Your task to perform on an android device: Go to internet settings Image 0: 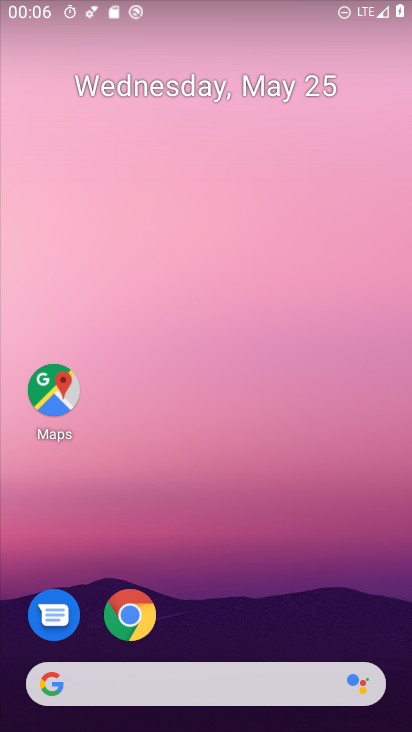
Step 0: drag from (260, 686) to (364, 66)
Your task to perform on an android device: Go to internet settings Image 1: 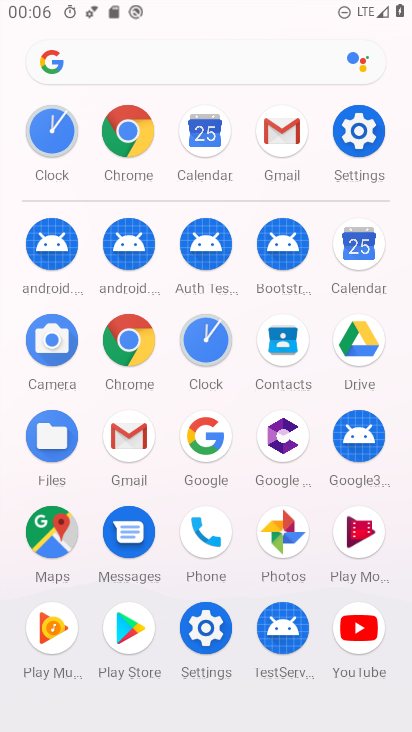
Step 1: click (354, 152)
Your task to perform on an android device: Go to internet settings Image 2: 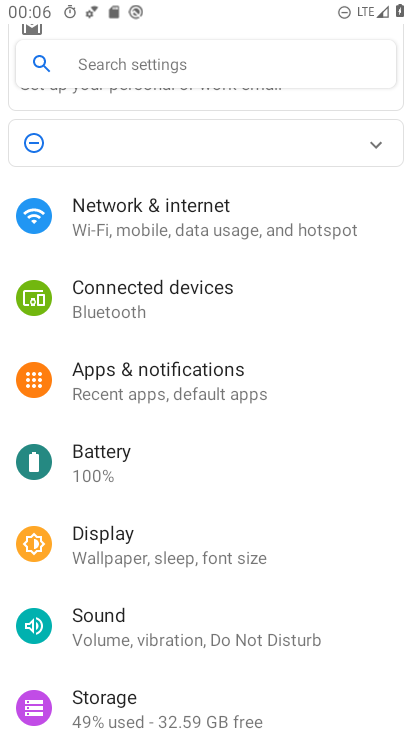
Step 2: click (188, 223)
Your task to perform on an android device: Go to internet settings Image 3: 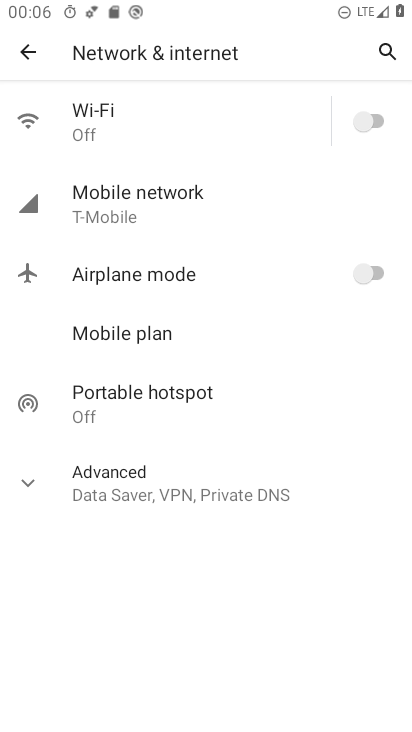
Step 3: task complete